Your task to perform on an android device: turn on bluetooth scan Image 0: 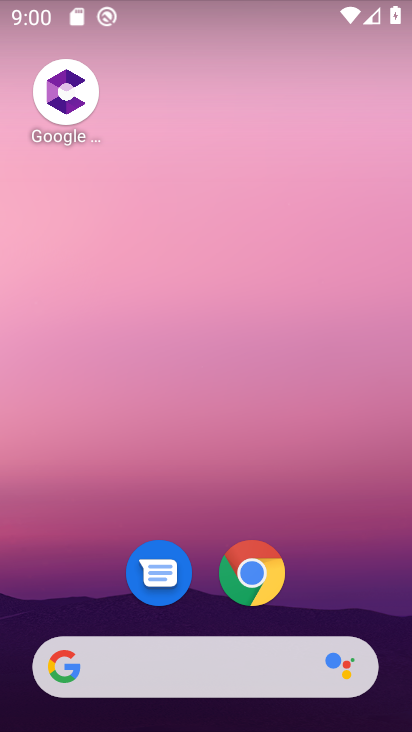
Step 0: drag from (78, 620) to (166, 231)
Your task to perform on an android device: turn on bluetooth scan Image 1: 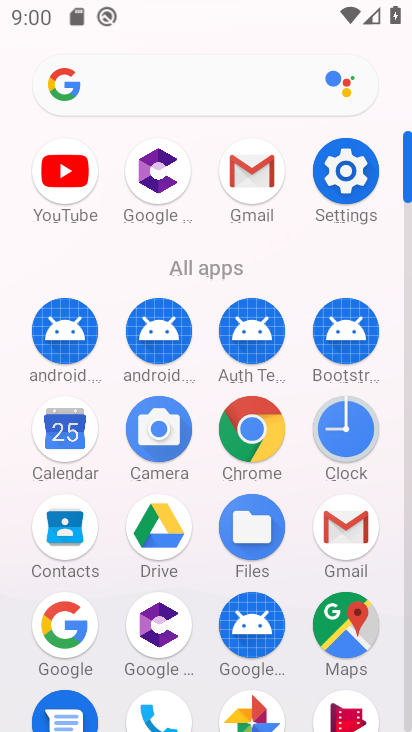
Step 1: drag from (212, 649) to (263, 361)
Your task to perform on an android device: turn on bluetooth scan Image 2: 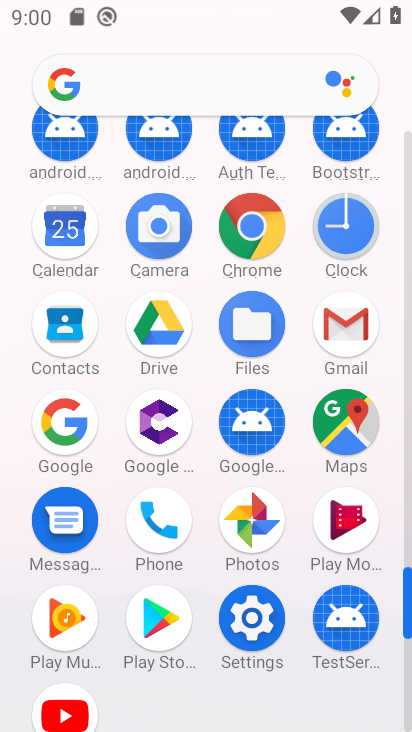
Step 2: click (269, 619)
Your task to perform on an android device: turn on bluetooth scan Image 3: 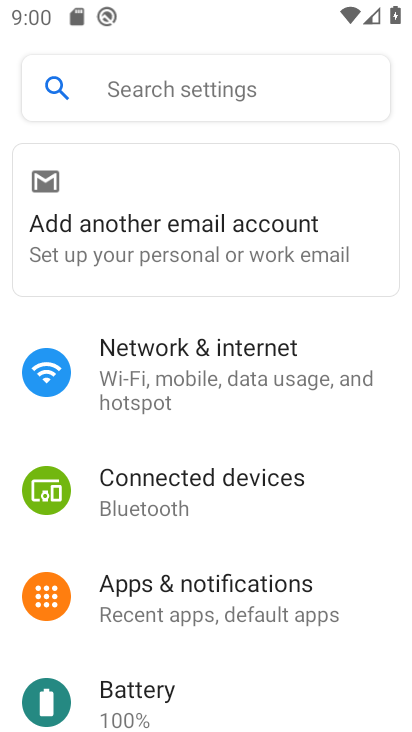
Step 3: click (212, 479)
Your task to perform on an android device: turn on bluetooth scan Image 4: 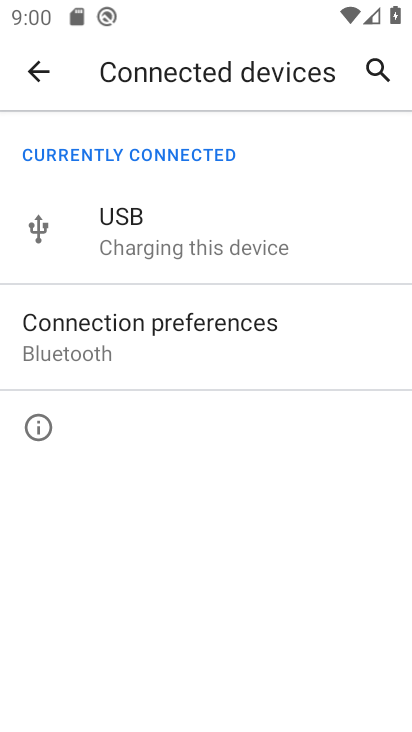
Step 4: click (190, 323)
Your task to perform on an android device: turn on bluetooth scan Image 5: 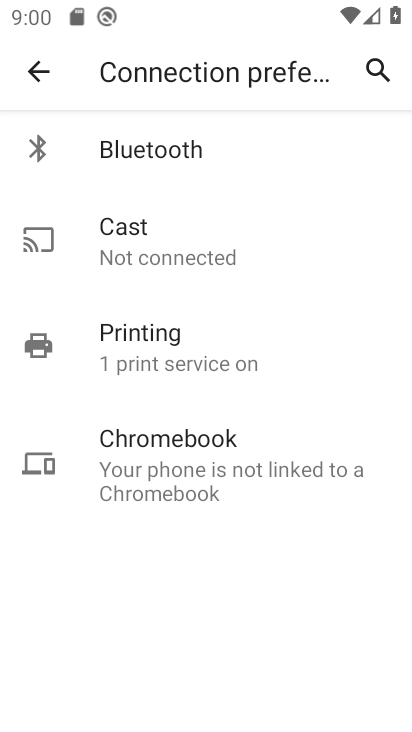
Step 5: click (261, 154)
Your task to perform on an android device: turn on bluetooth scan Image 6: 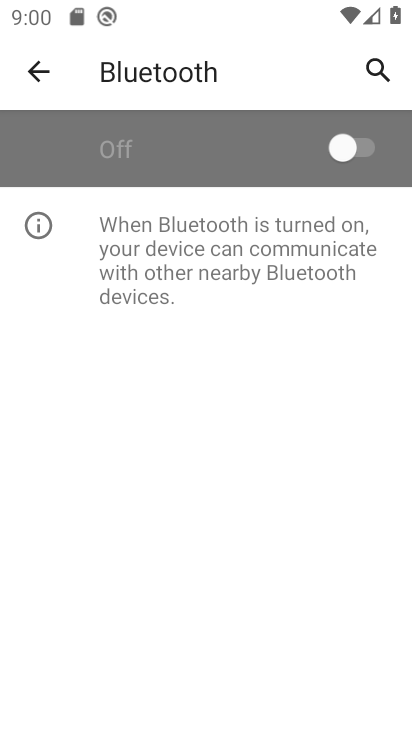
Step 6: click (379, 152)
Your task to perform on an android device: turn on bluetooth scan Image 7: 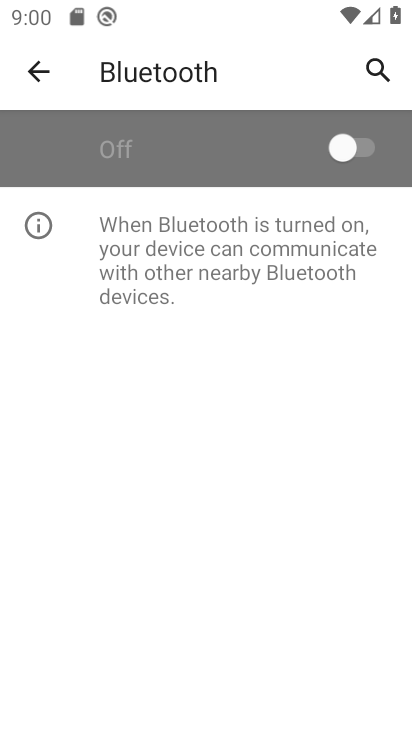
Step 7: click (379, 150)
Your task to perform on an android device: turn on bluetooth scan Image 8: 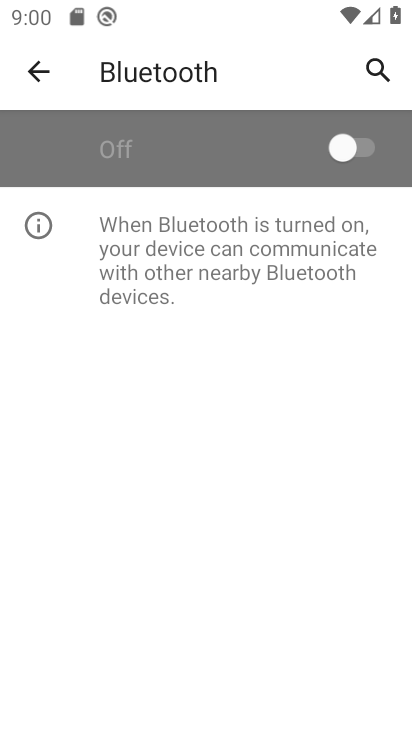
Step 8: task complete